Your task to perform on an android device: Add usb-c to usb-b to the cart on newegg.com, then select checkout. Image 0: 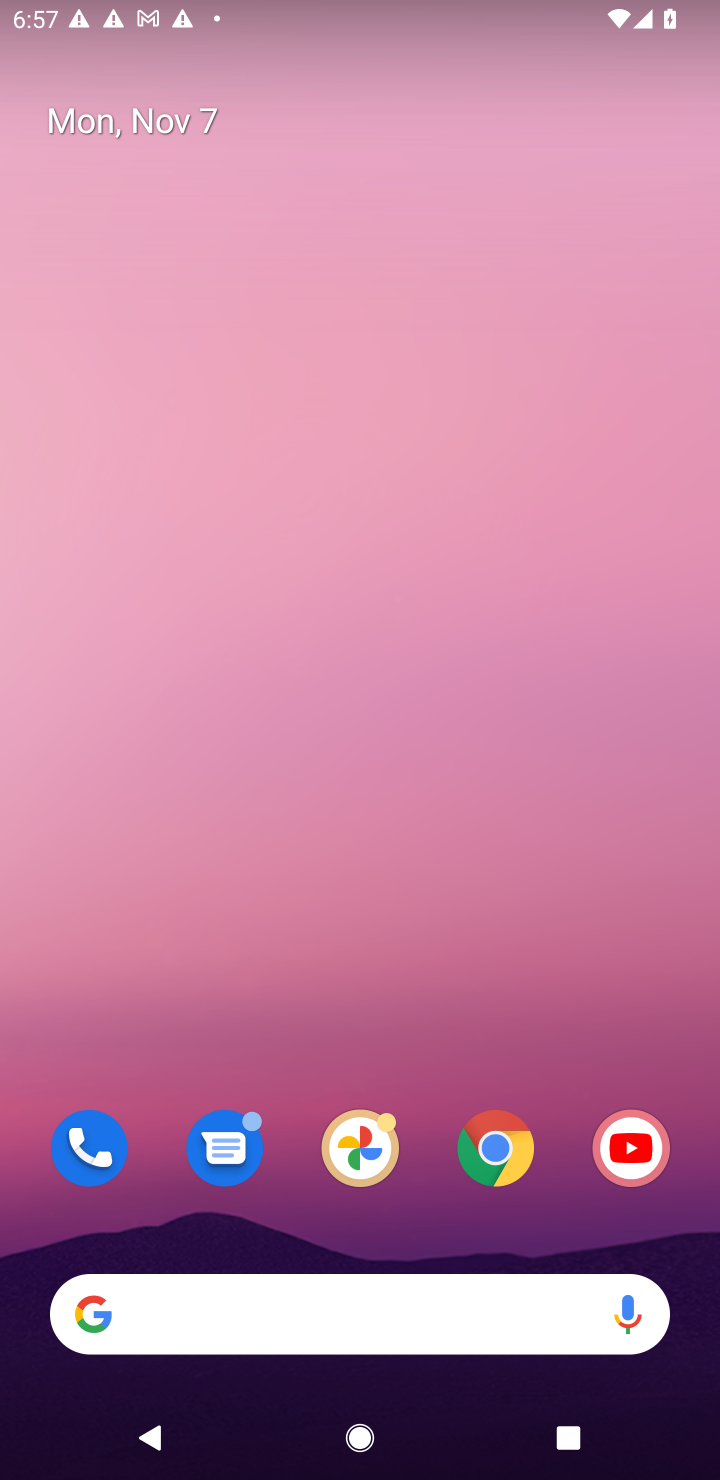
Step 0: click (516, 1156)
Your task to perform on an android device: Add usb-c to usb-b to the cart on newegg.com, then select checkout. Image 1: 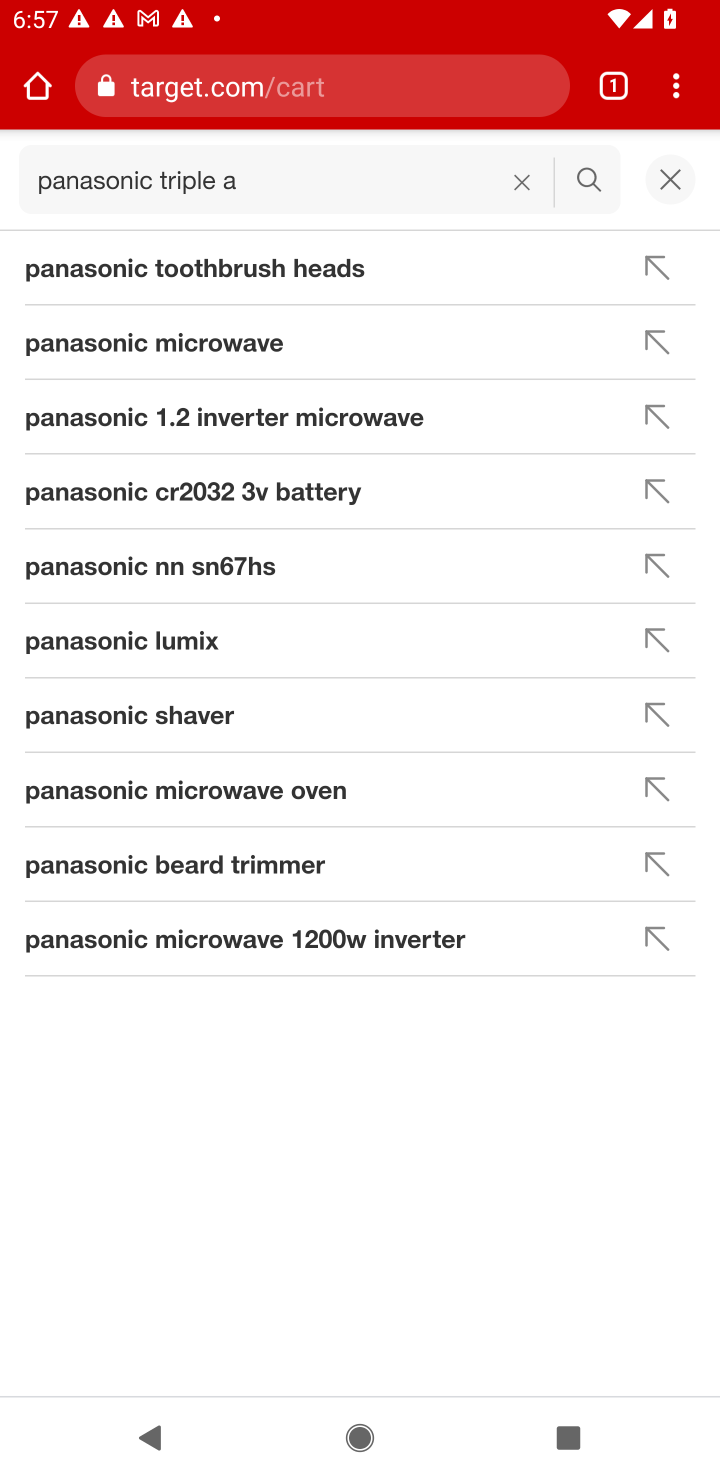
Step 1: click (459, 71)
Your task to perform on an android device: Add usb-c to usb-b to the cart on newegg.com, then select checkout. Image 2: 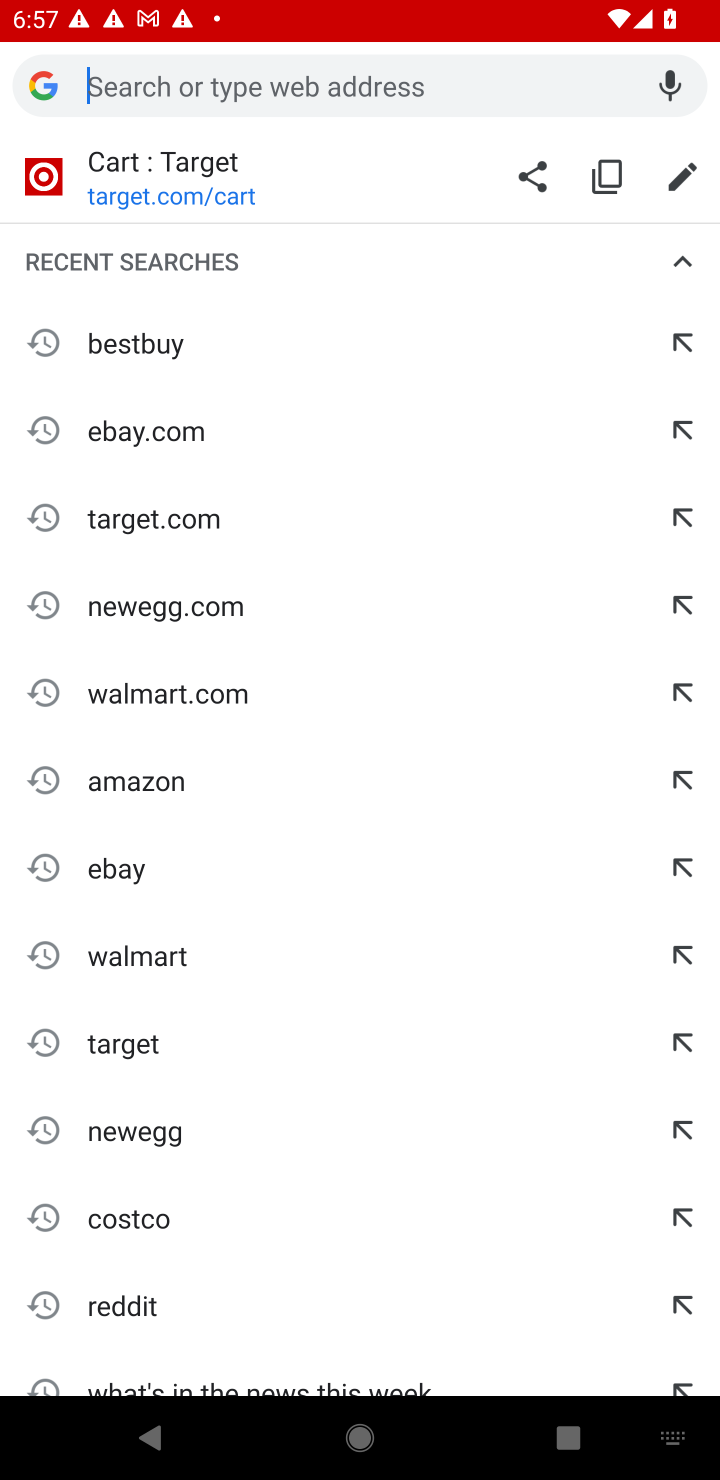
Step 2: click (198, 613)
Your task to perform on an android device: Add usb-c to usb-b to the cart on newegg.com, then select checkout. Image 3: 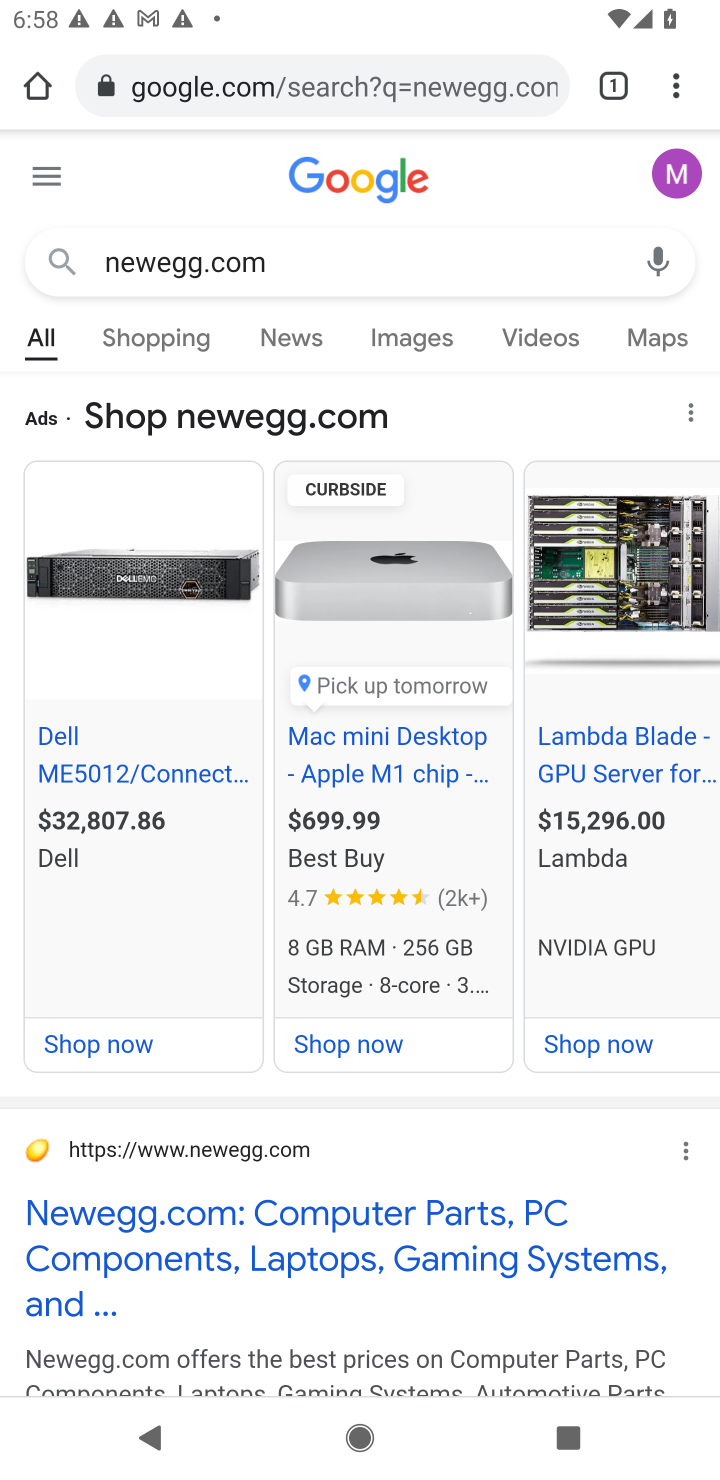
Step 3: click (246, 1143)
Your task to perform on an android device: Add usb-c to usb-b to the cart on newegg.com, then select checkout. Image 4: 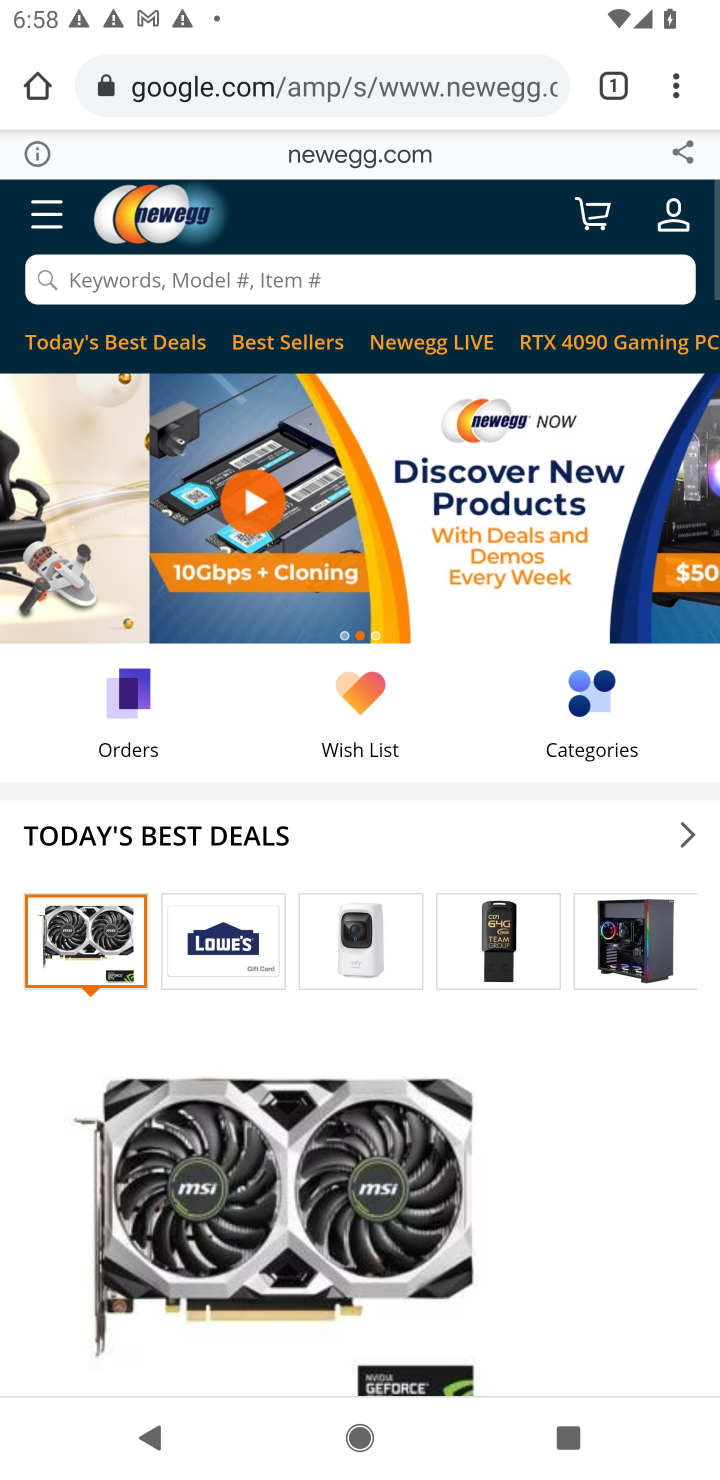
Step 4: click (432, 283)
Your task to perform on an android device: Add usb-c to usb-b to the cart on newegg.com, then select checkout. Image 5: 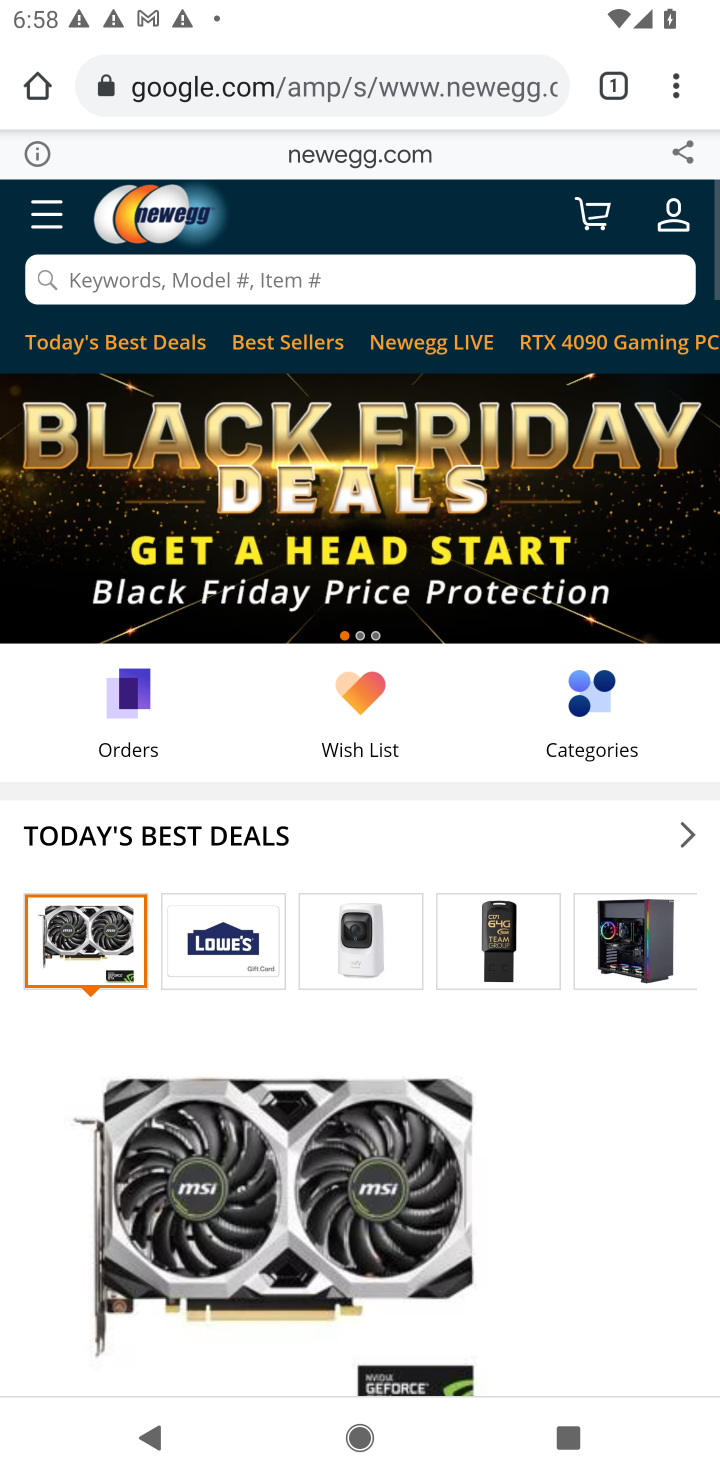
Step 5: click (576, 280)
Your task to perform on an android device: Add usb-c to usb-b to the cart on newegg.com, then select checkout. Image 6: 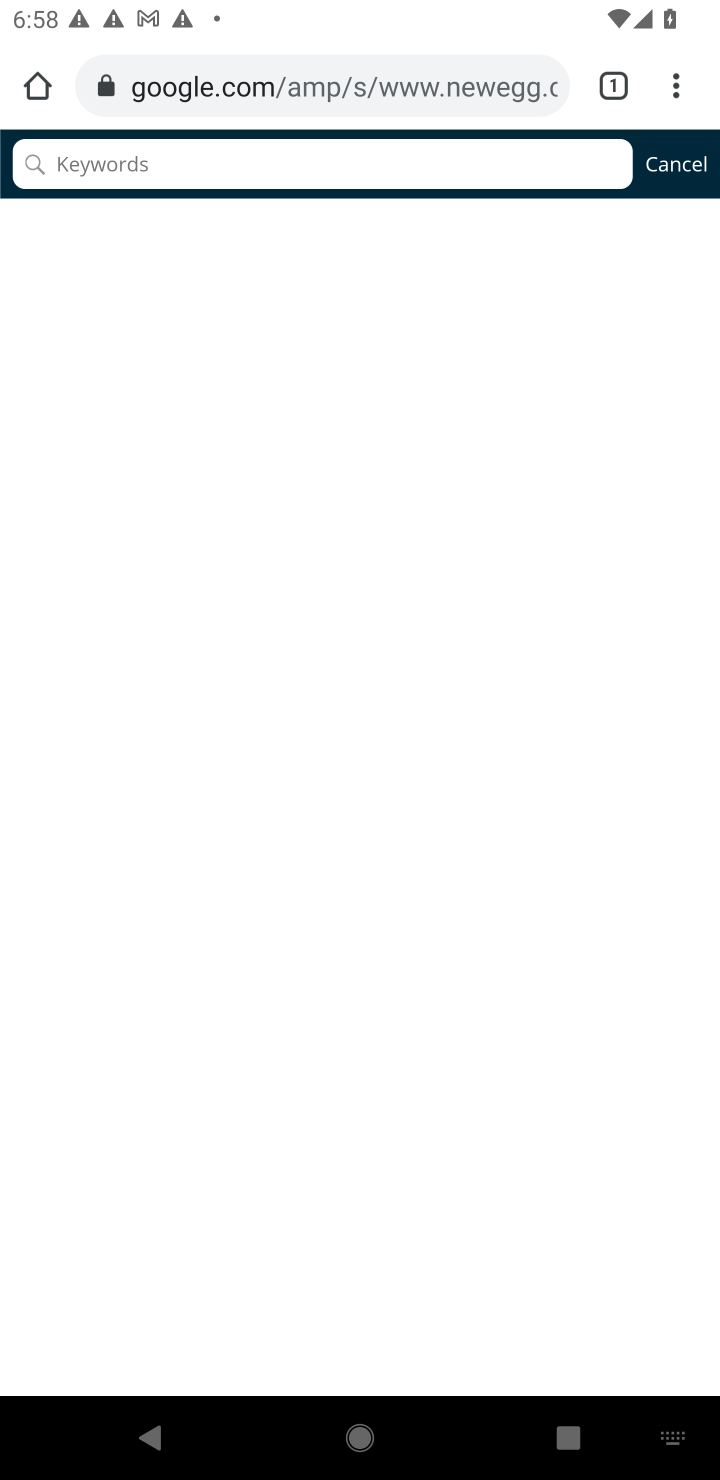
Step 6: type "usb-c to usb-b"
Your task to perform on an android device: Add usb-c to usb-b to the cart on newegg.com, then select checkout. Image 7: 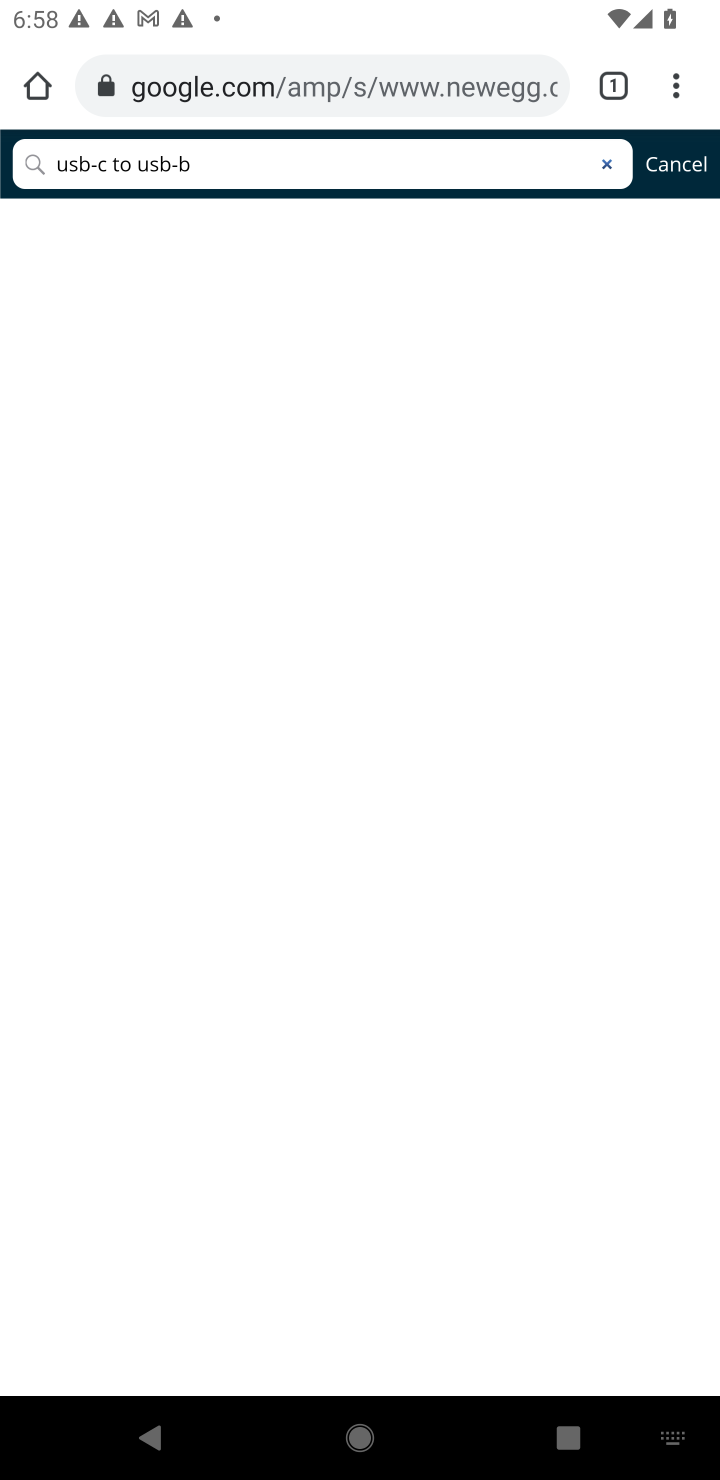
Step 7: click (443, 279)
Your task to perform on an android device: Add usb-c to usb-b to the cart on newegg.com, then select checkout. Image 8: 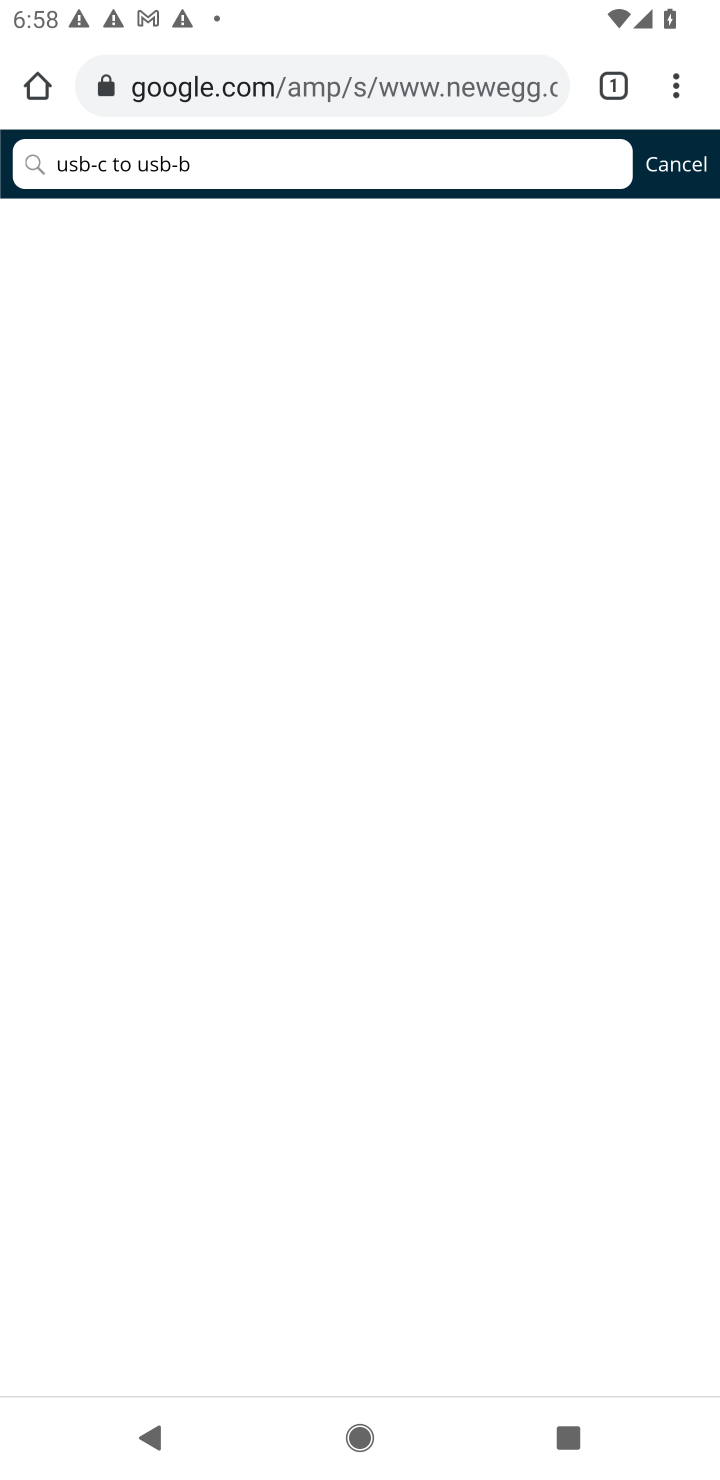
Step 8: click (445, 280)
Your task to perform on an android device: Add usb-c to usb-b to the cart on newegg.com, then select checkout. Image 9: 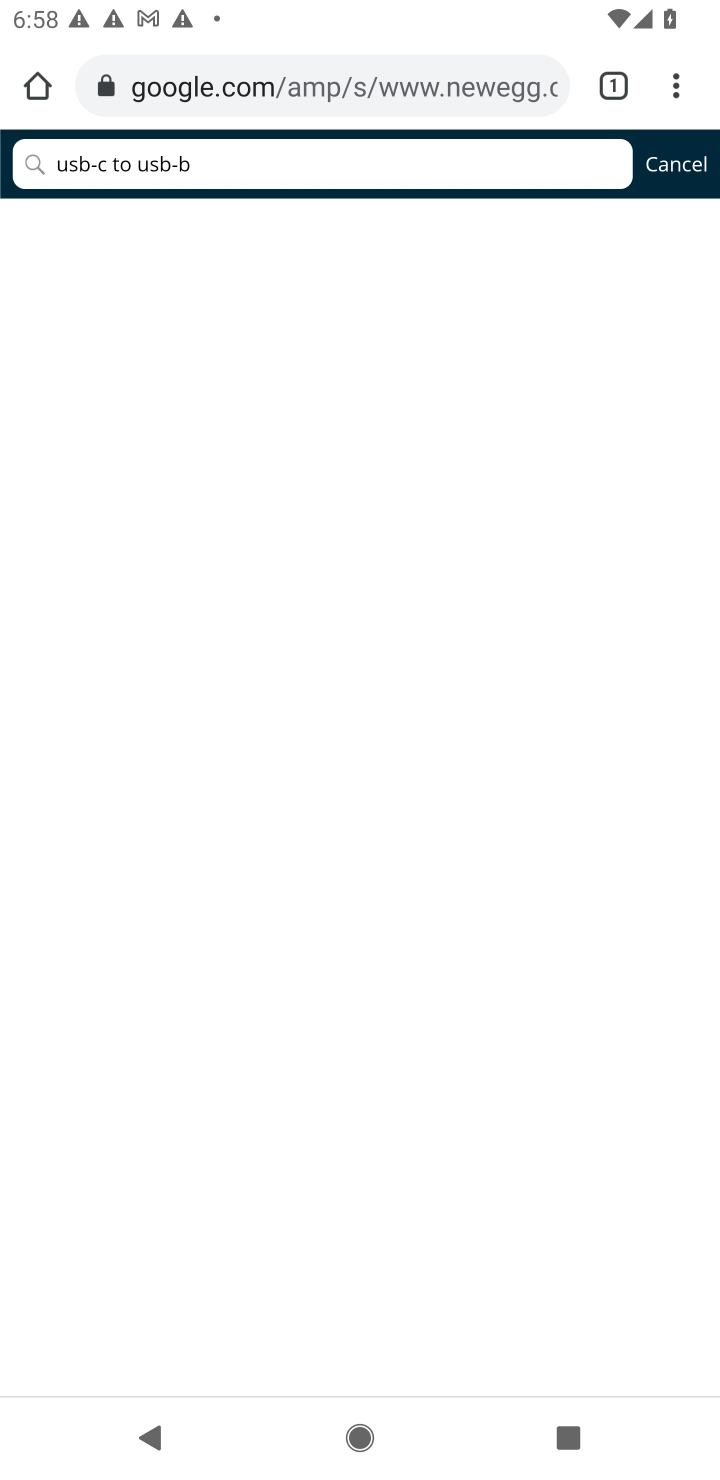
Step 9: click (423, 361)
Your task to perform on an android device: Add usb-c to usb-b to the cart on newegg.com, then select checkout. Image 10: 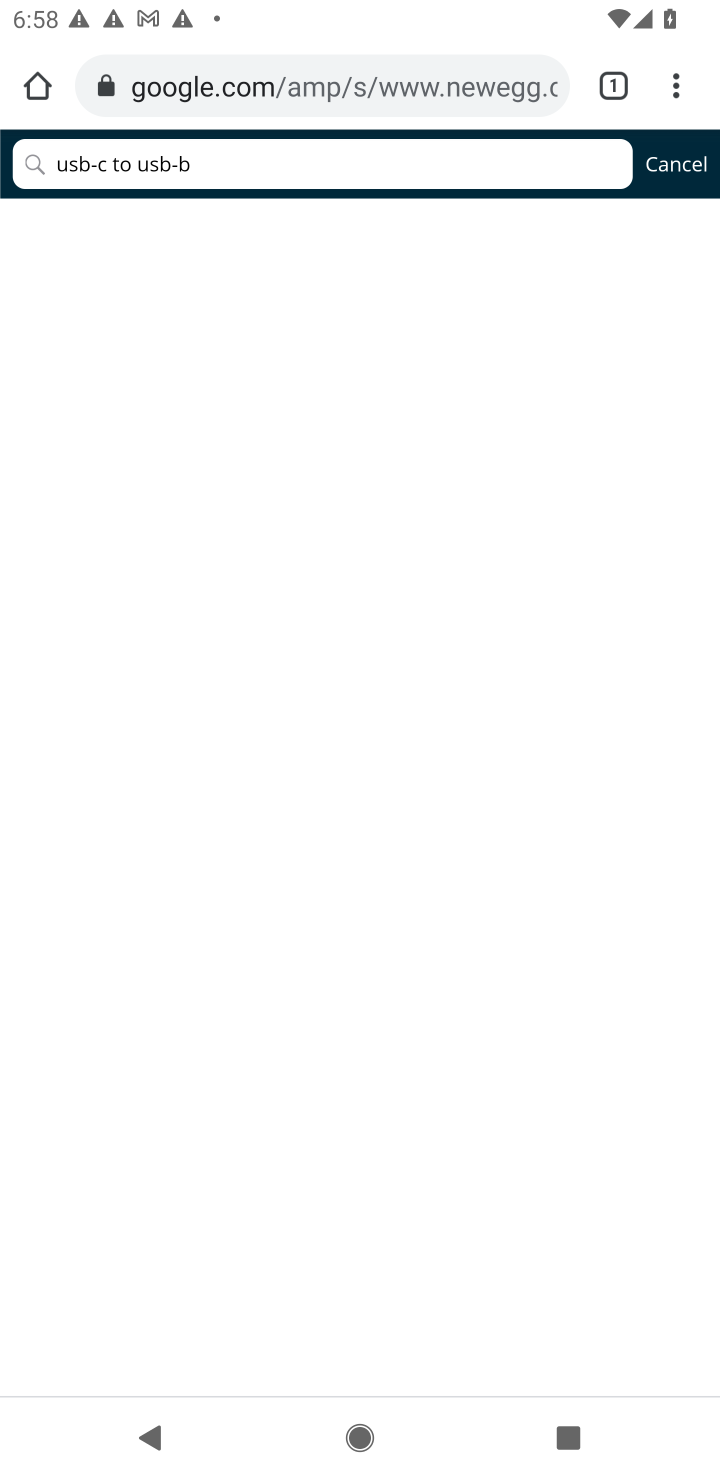
Step 10: task complete